Your task to perform on an android device: Search for Italian restaurants on Maps Image 0: 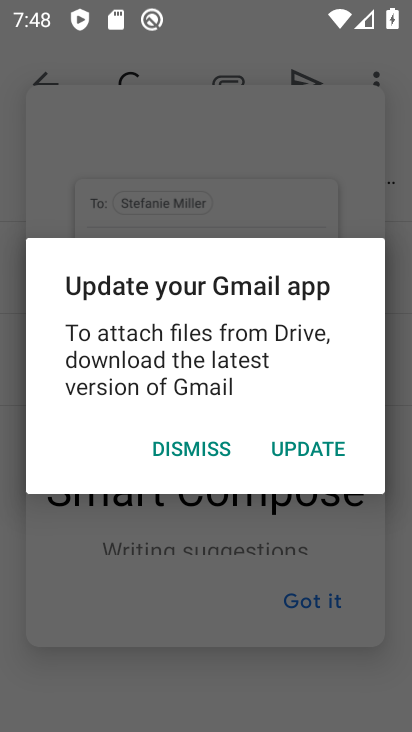
Step 0: press home button
Your task to perform on an android device: Search for Italian restaurants on Maps Image 1: 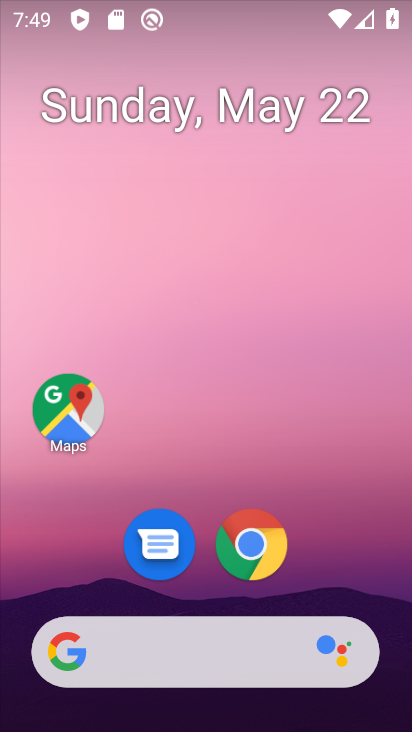
Step 1: click (58, 426)
Your task to perform on an android device: Search for Italian restaurants on Maps Image 2: 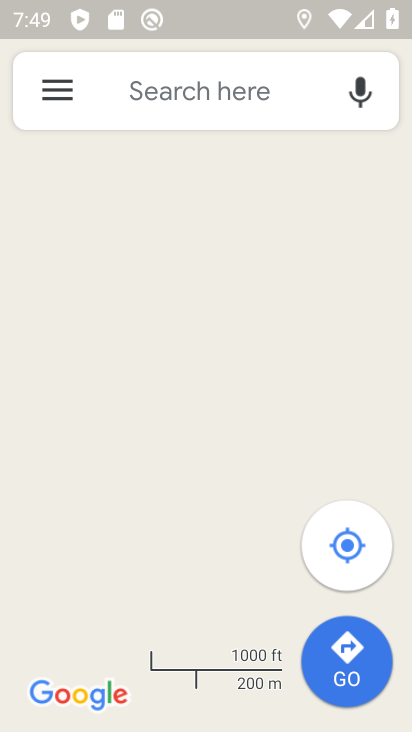
Step 2: click (199, 94)
Your task to perform on an android device: Search for Italian restaurants on Maps Image 3: 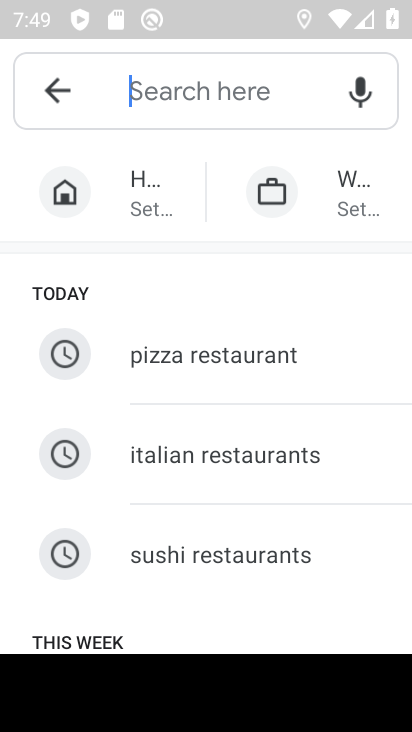
Step 3: type "Italian restaurants"
Your task to perform on an android device: Search for Italian restaurants on Maps Image 4: 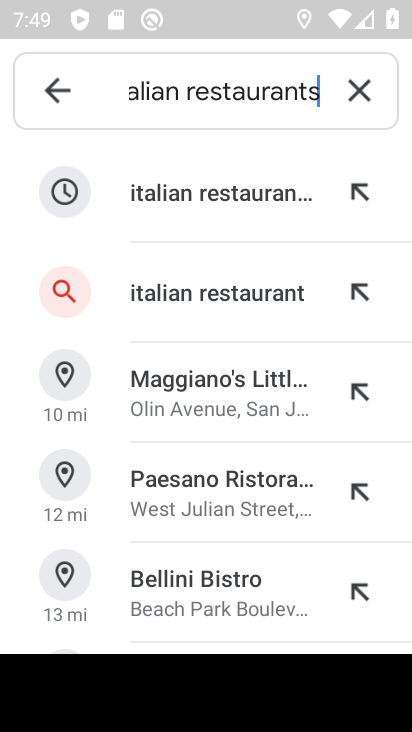
Step 4: press enter
Your task to perform on an android device: Search for Italian restaurants on Maps Image 5: 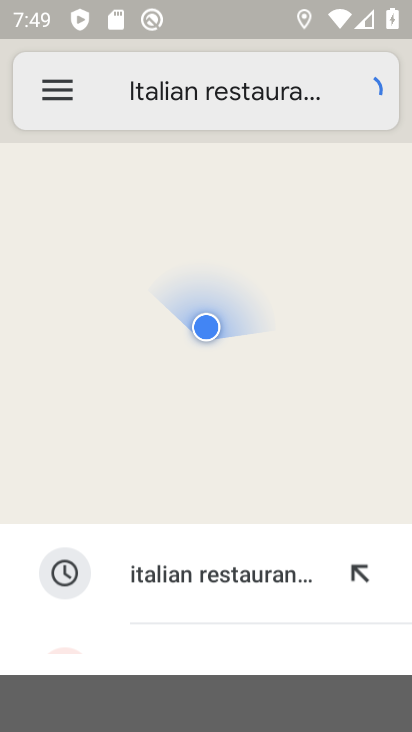
Step 5: press enter
Your task to perform on an android device: Search for Italian restaurants on Maps Image 6: 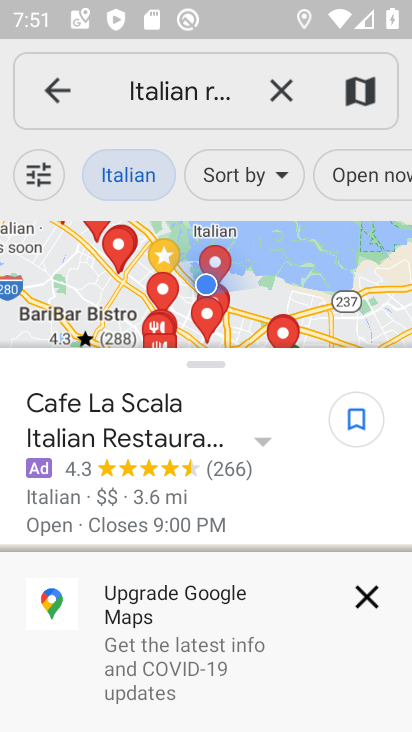
Step 6: task complete